Your task to perform on an android device: Go to Yahoo.com Image 0: 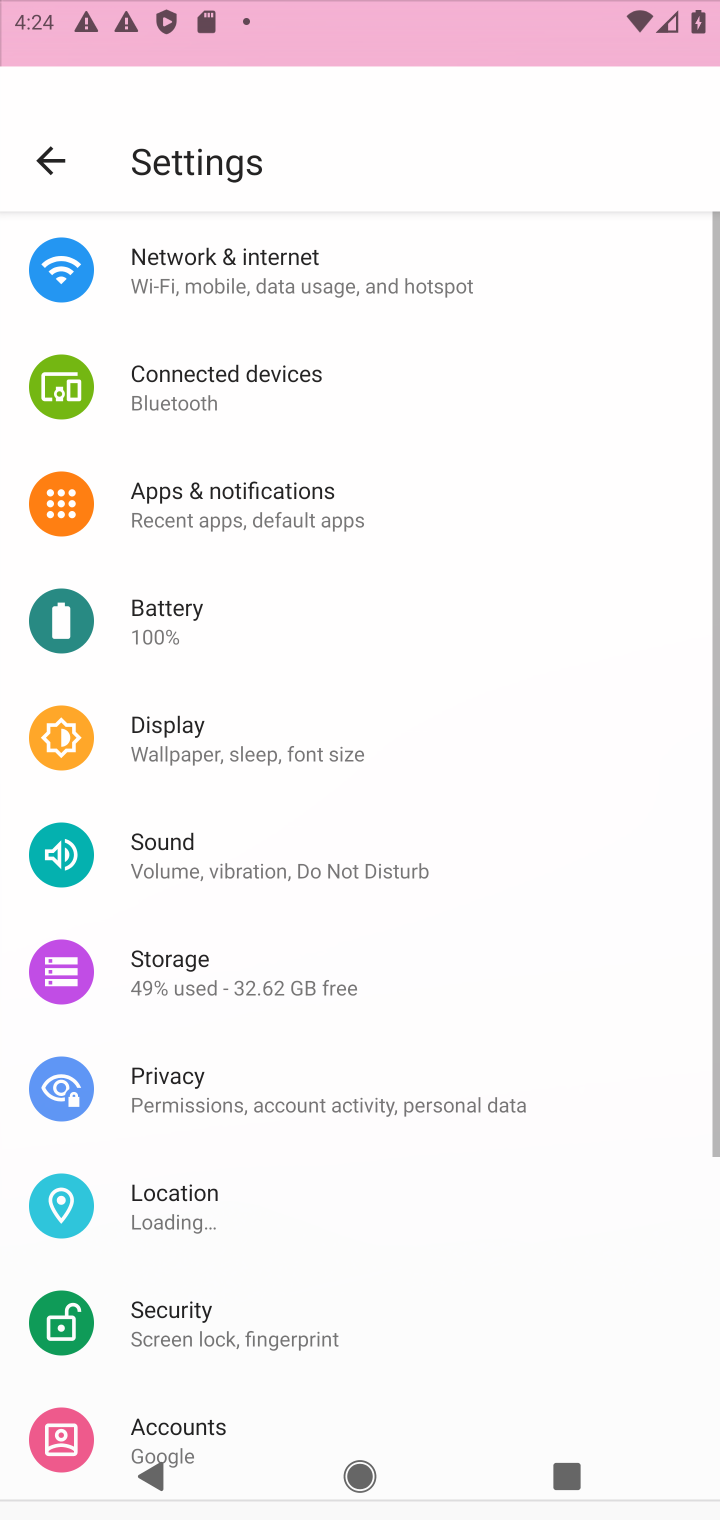
Step 0: press home button
Your task to perform on an android device: Go to Yahoo.com Image 1: 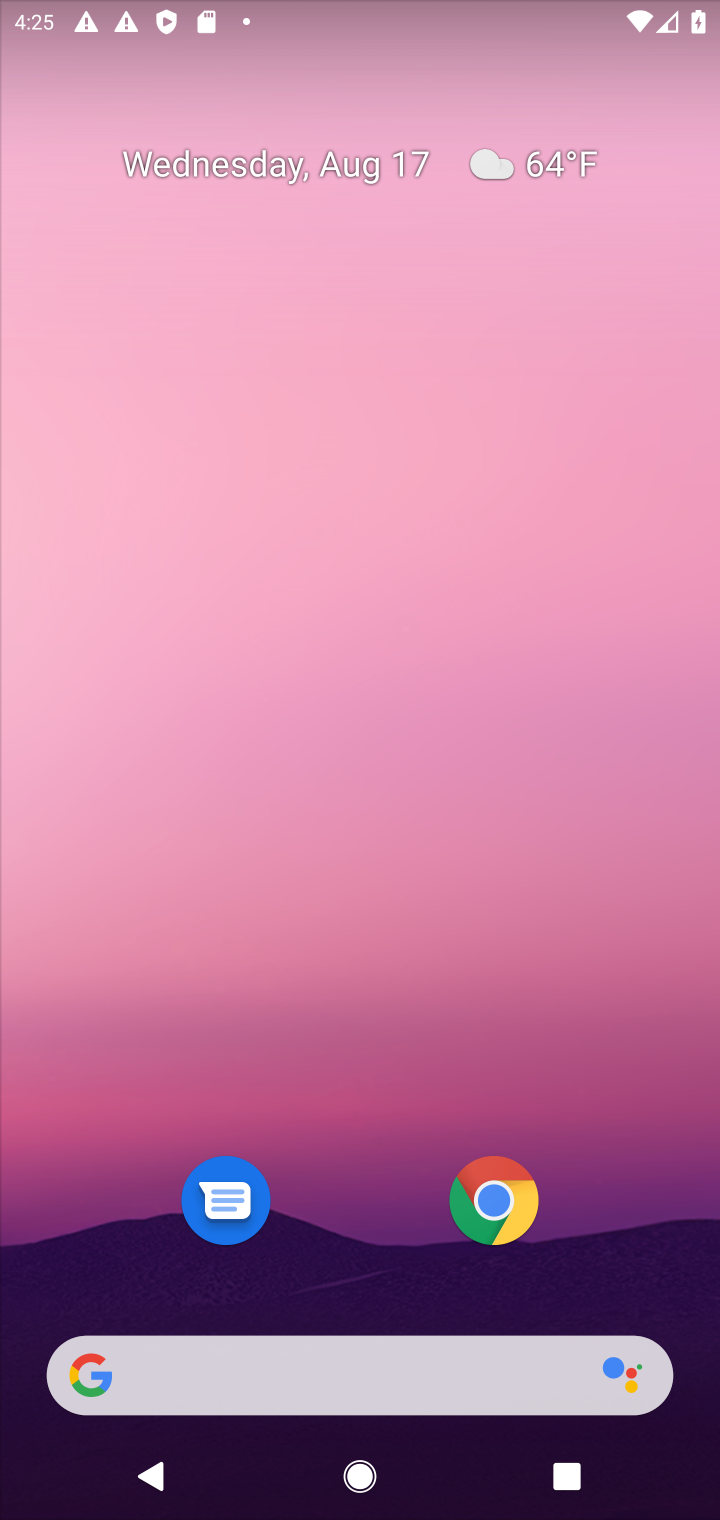
Step 1: click (489, 1207)
Your task to perform on an android device: Go to Yahoo.com Image 2: 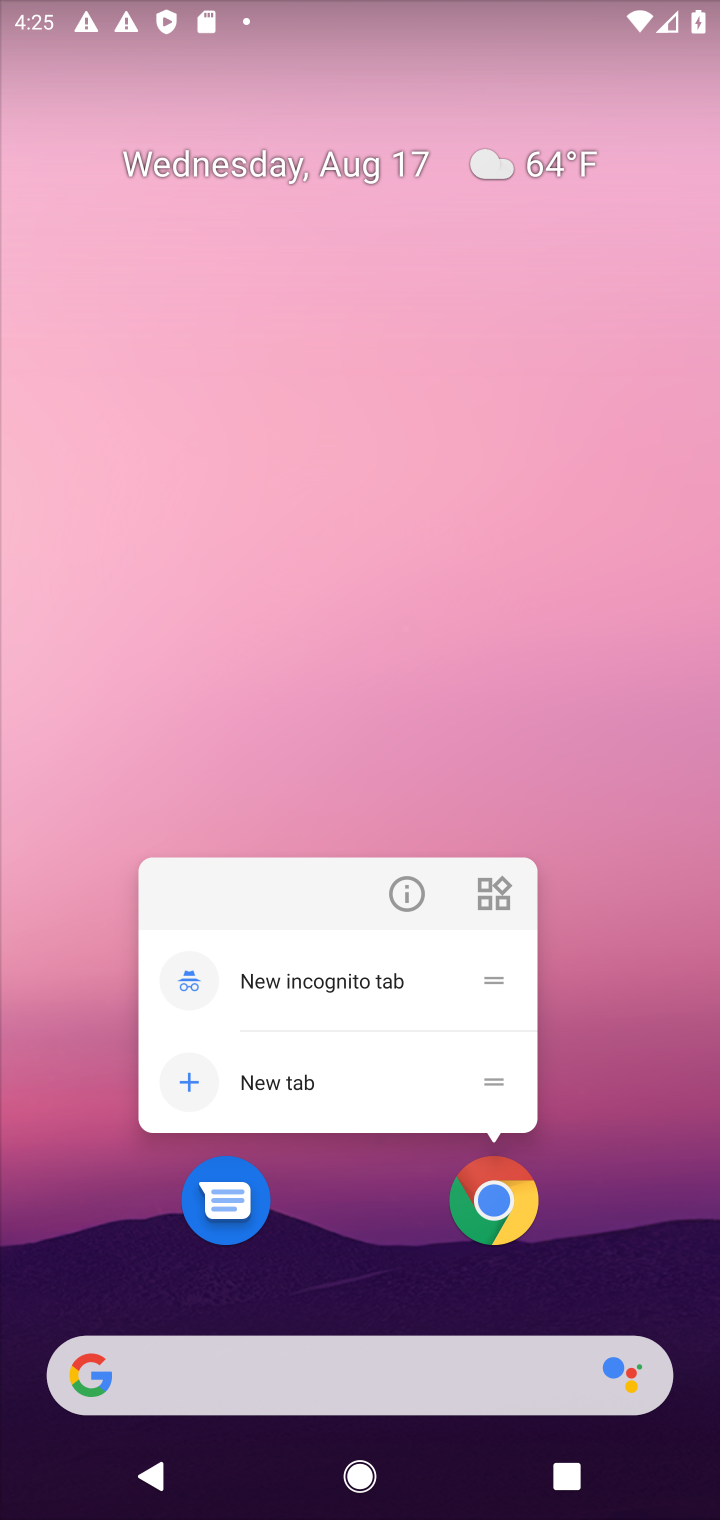
Step 2: click (489, 1207)
Your task to perform on an android device: Go to Yahoo.com Image 3: 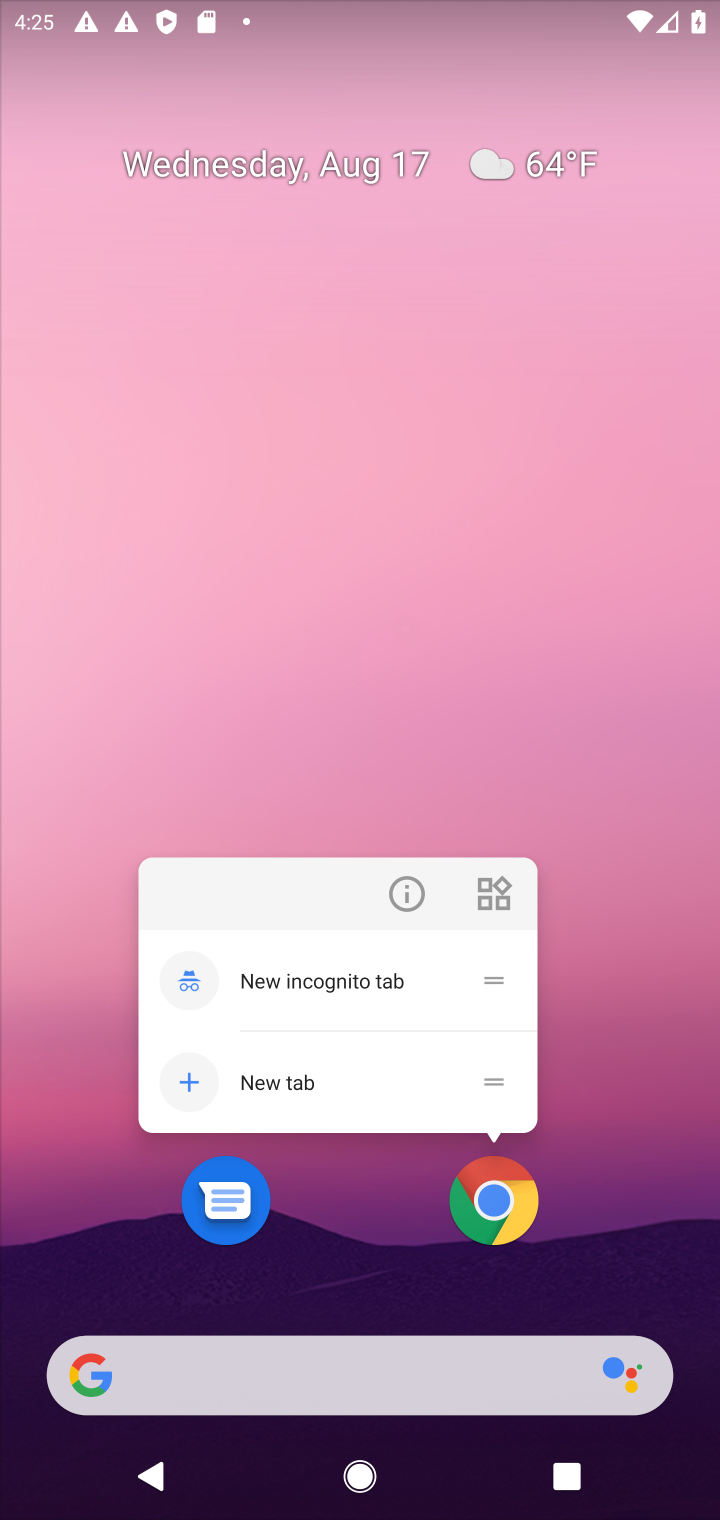
Step 3: click (489, 1209)
Your task to perform on an android device: Go to Yahoo.com Image 4: 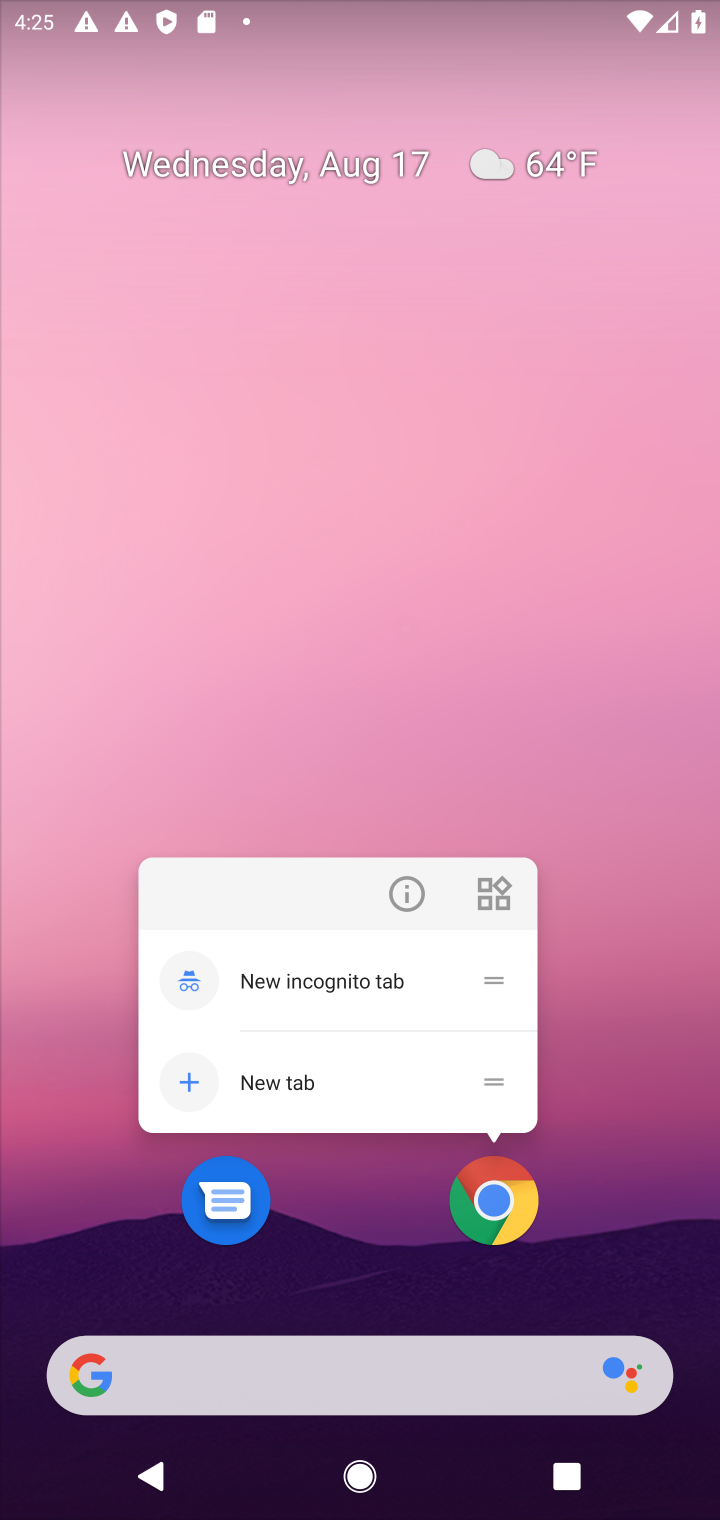
Step 4: click (489, 1209)
Your task to perform on an android device: Go to Yahoo.com Image 5: 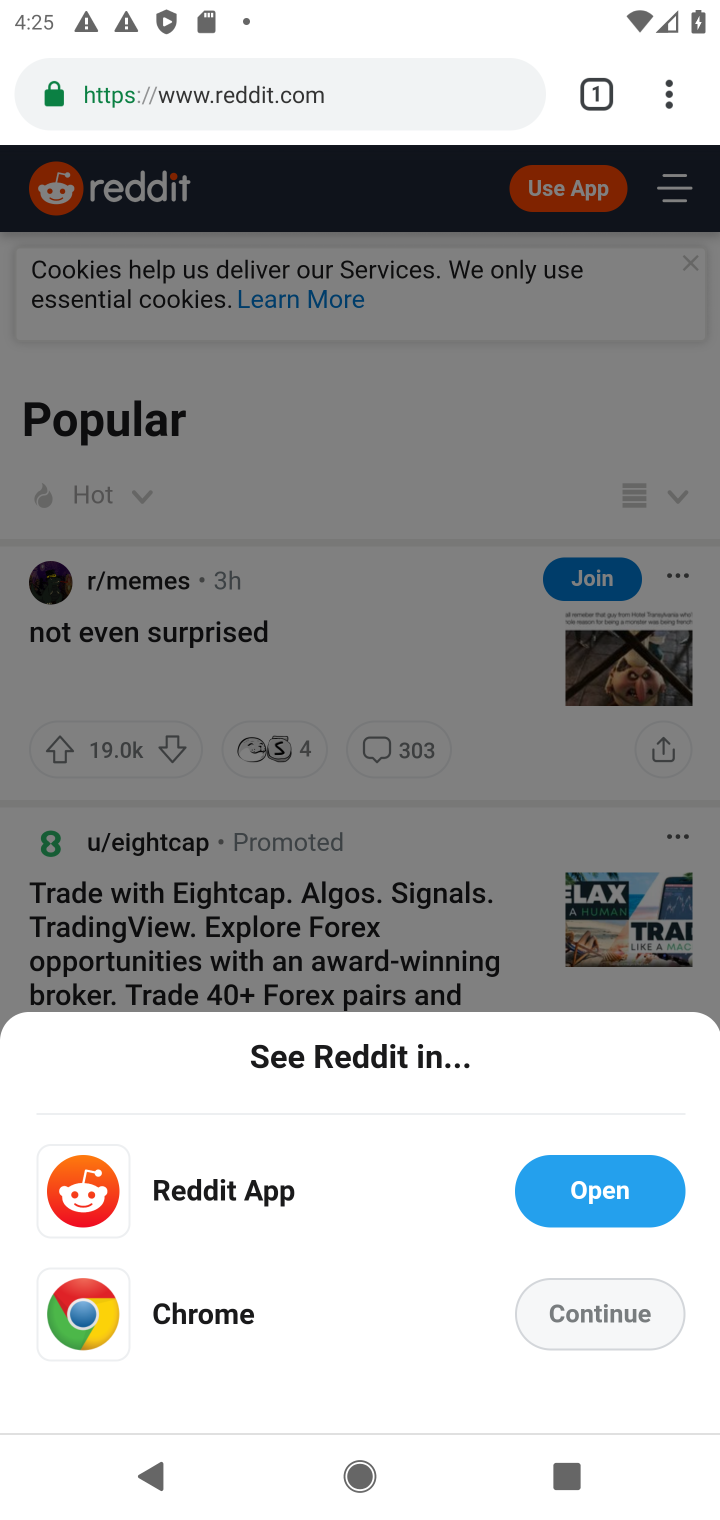
Step 5: click (672, 107)
Your task to perform on an android device: Go to Yahoo.com Image 6: 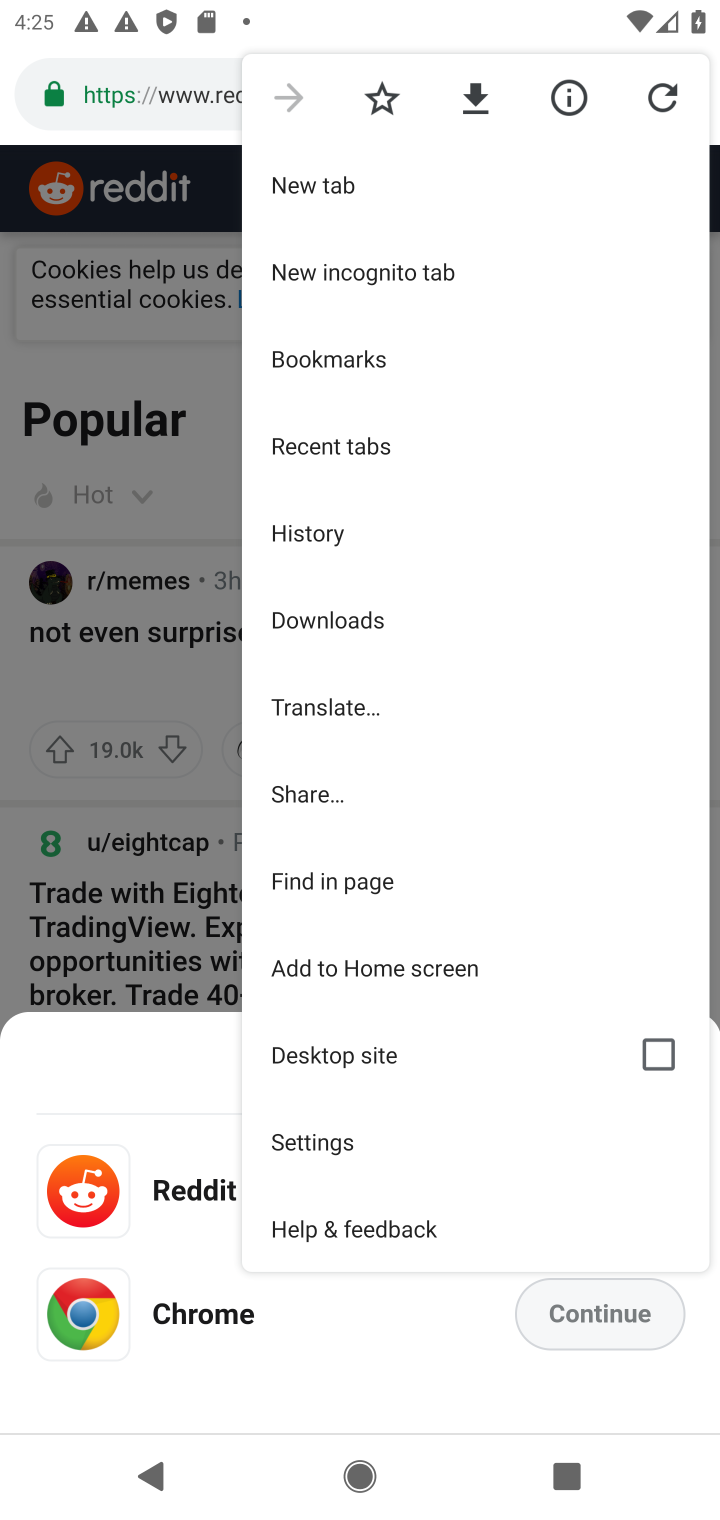
Step 6: click (324, 177)
Your task to perform on an android device: Go to Yahoo.com Image 7: 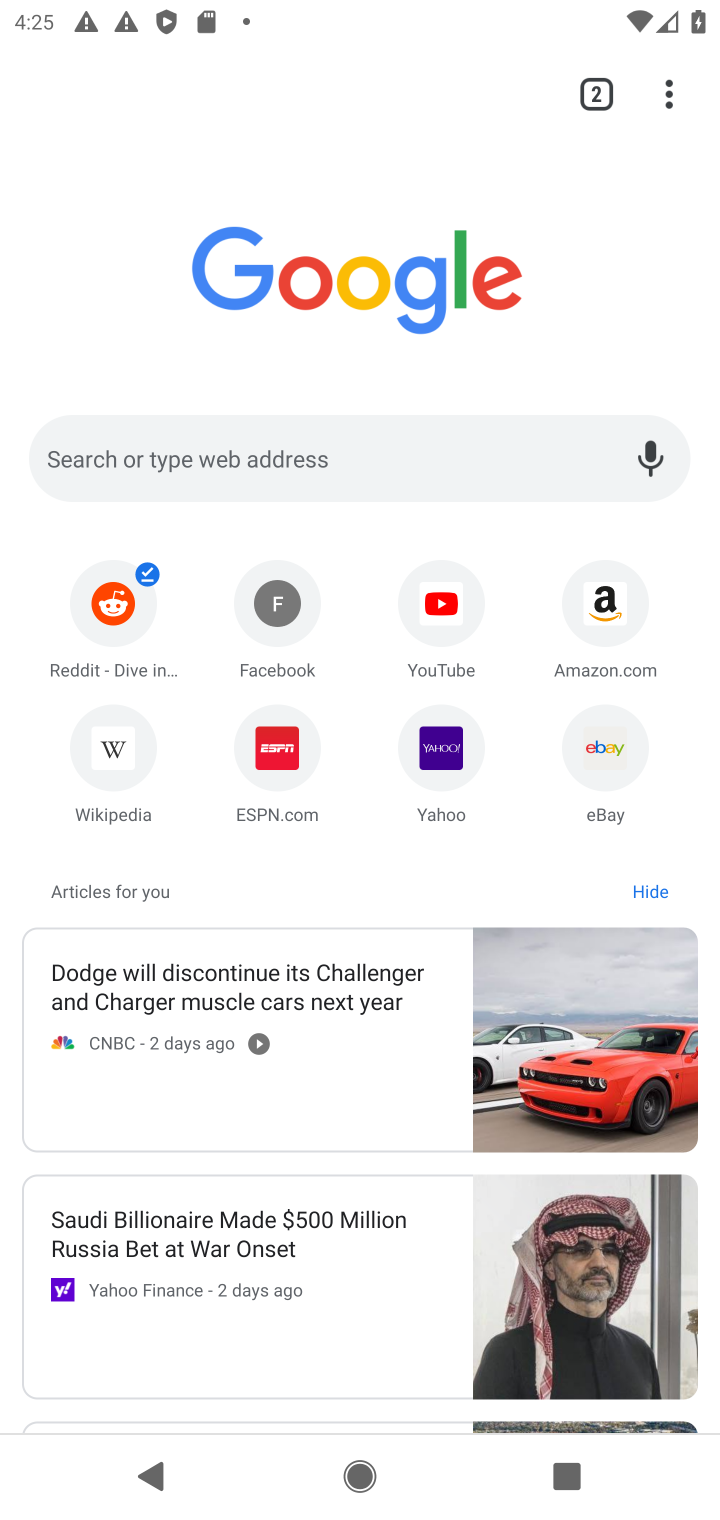
Step 7: click (440, 761)
Your task to perform on an android device: Go to Yahoo.com Image 8: 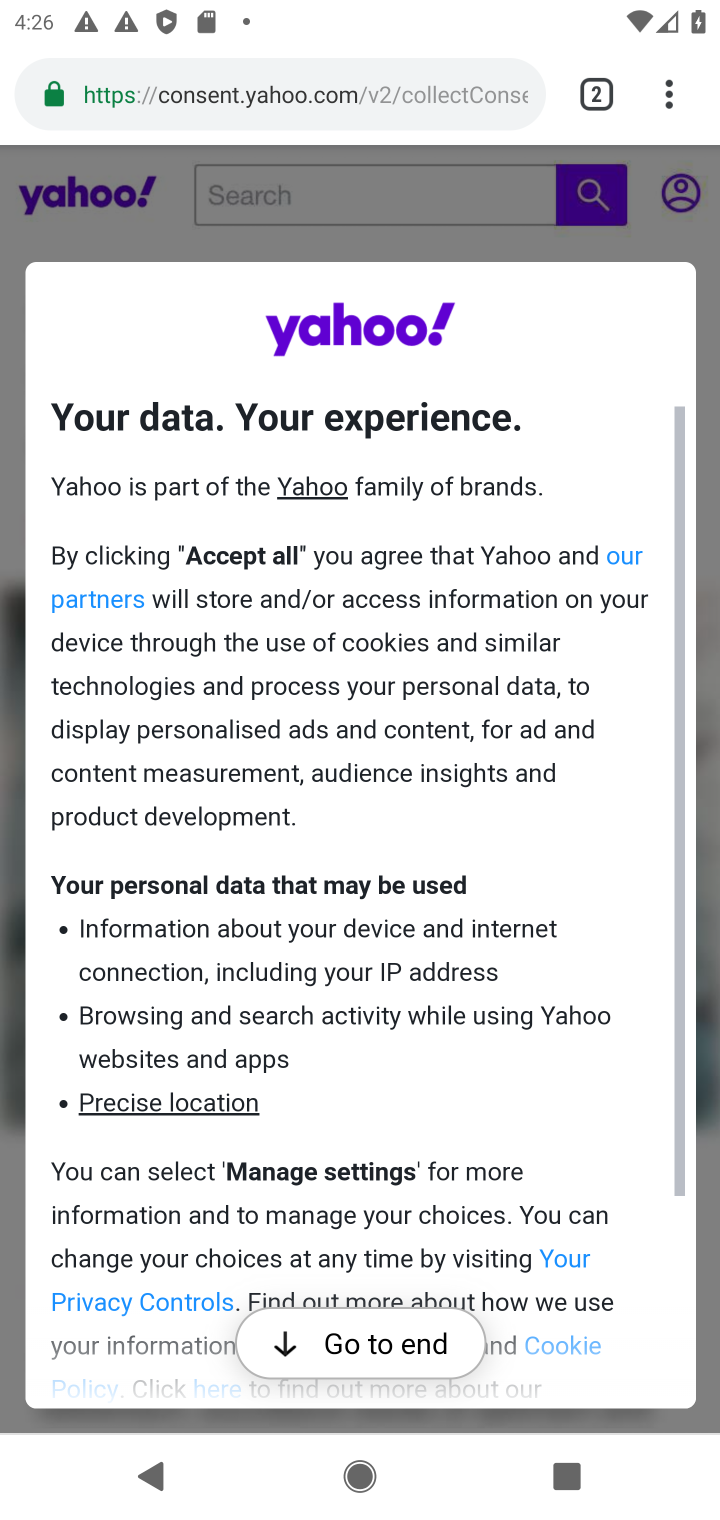
Step 8: click (345, 1355)
Your task to perform on an android device: Go to Yahoo.com Image 9: 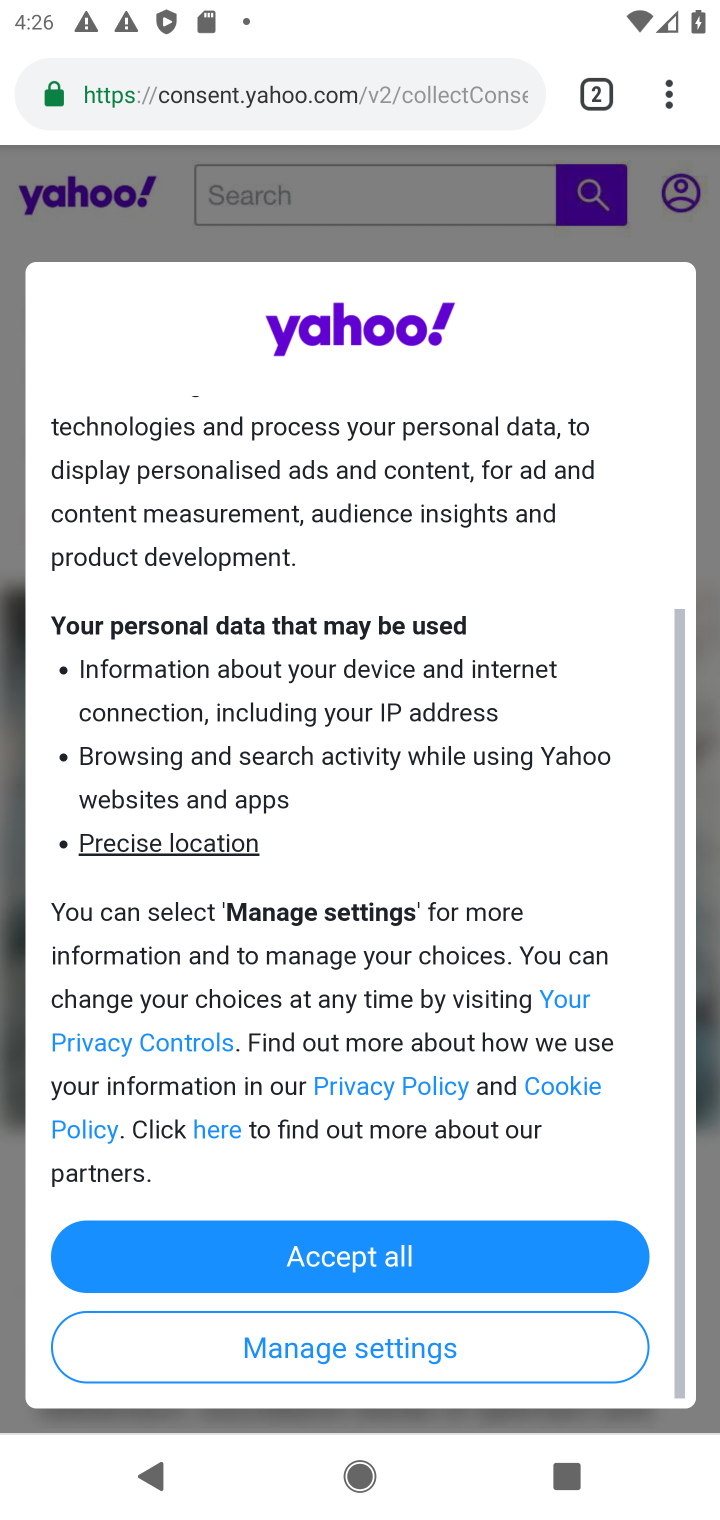
Step 9: click (394, 1244)
Your task to perform on an android device: Go to Yahoo.com Image 10: 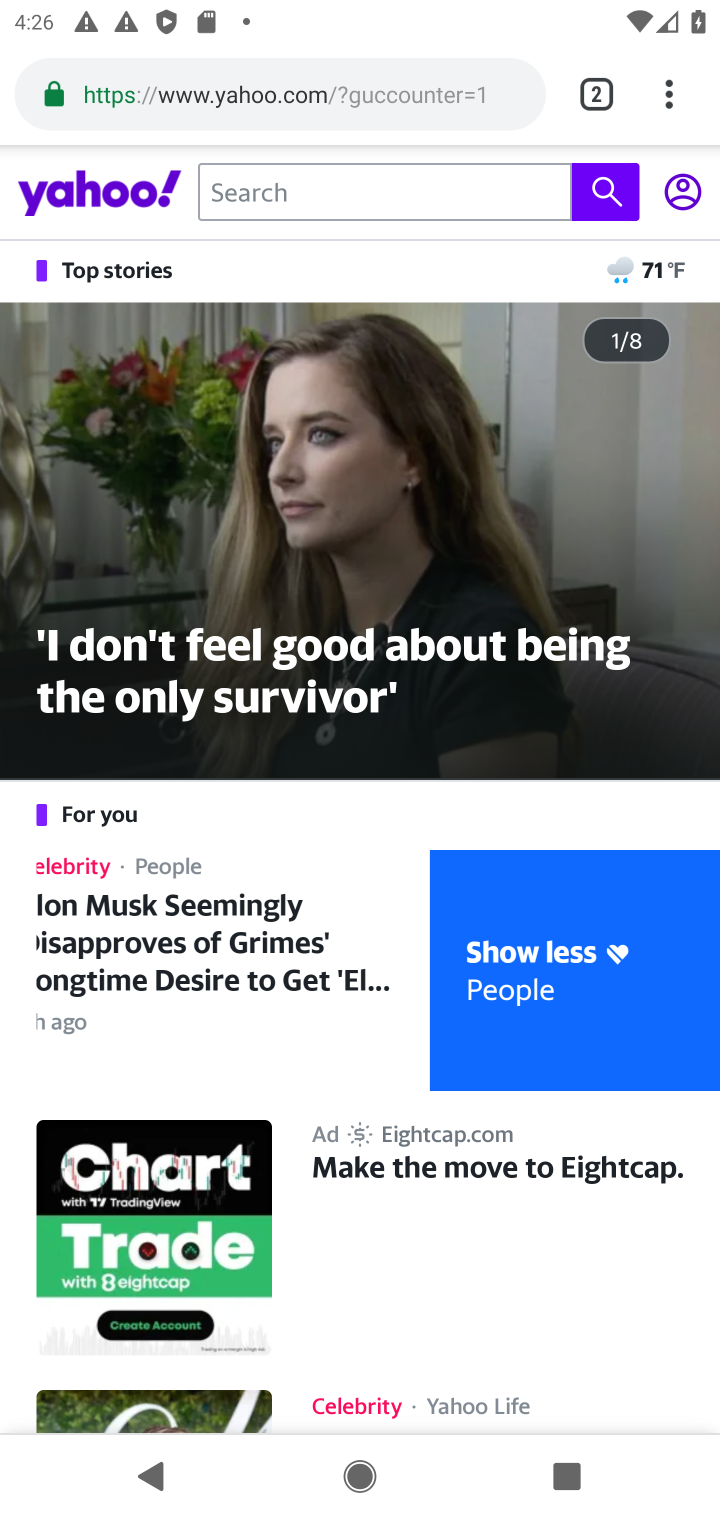
Step 10: task complete